Your task to perform on an android device: open app "Clock" Image 0: 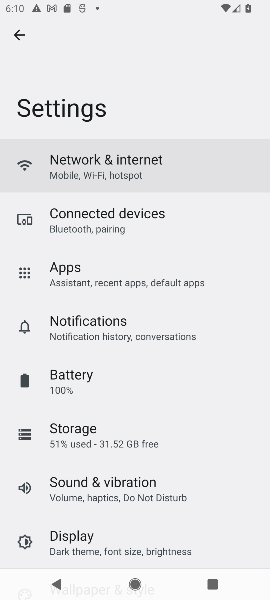
Step 0: press home button
Your task to perform on an android device: open app "Clock" Image 1: 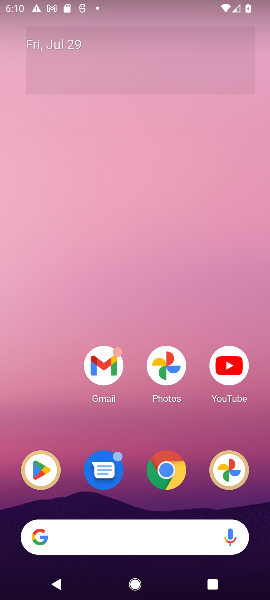
Step 1: drag from (193, 421) to (192, 0)
Your task to perform on an android device: open app "Clock" Image 2: 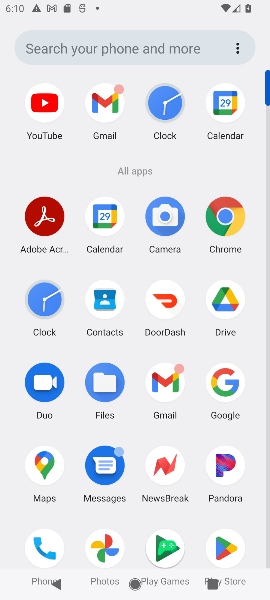
Step 2: click (34, 298)
Your task to perform on an android device: open app "Clock" Image 3: 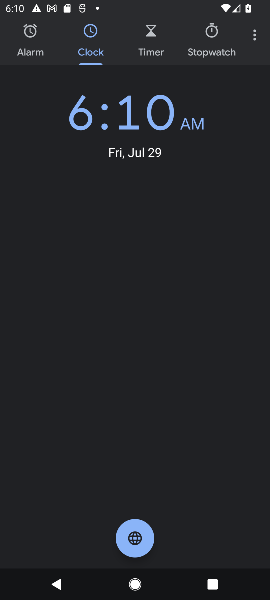
Step 3: task complete